Your task to perform on an android device: see sites visited before in the chrome app Image 0: 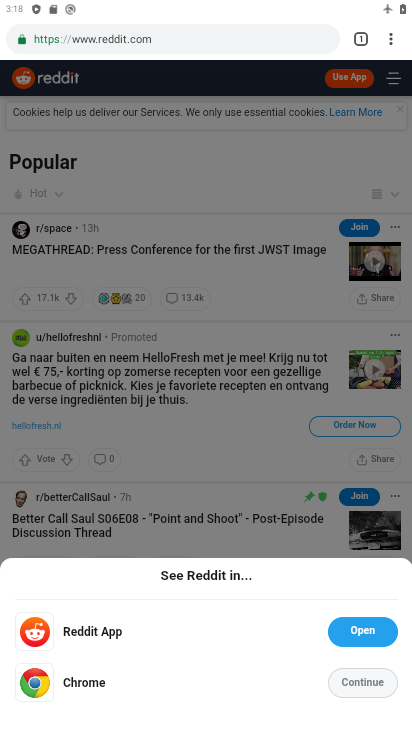
Step 0: press home button
Your task to perform on an android device: see sites visited before in the chrome app Image 1: 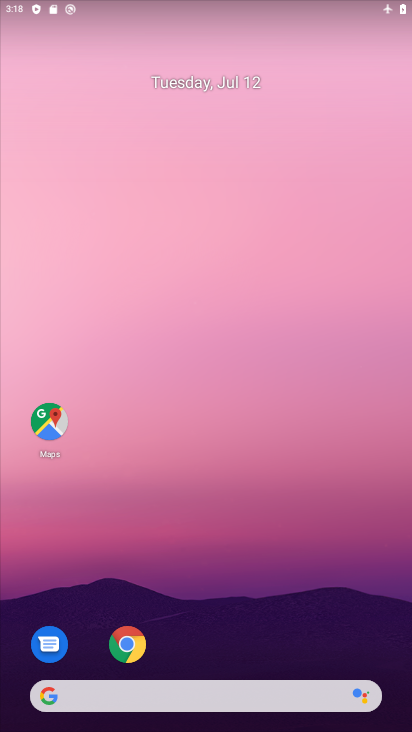
Step 1: drag from (215, 516) to (240, 187)
Your task to perform on an android device: see sites visited before in the chrome app Image 2: 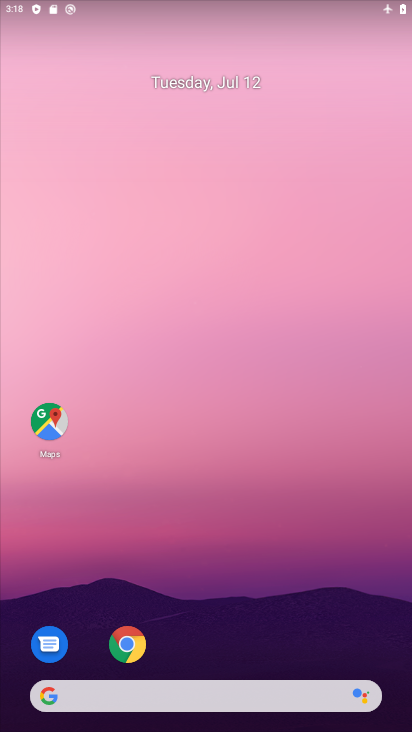
Step 2: drag from (303, 578) to (268, 10)
Your task to perform on an android device: see sites visited before in the chrome app Image 3: 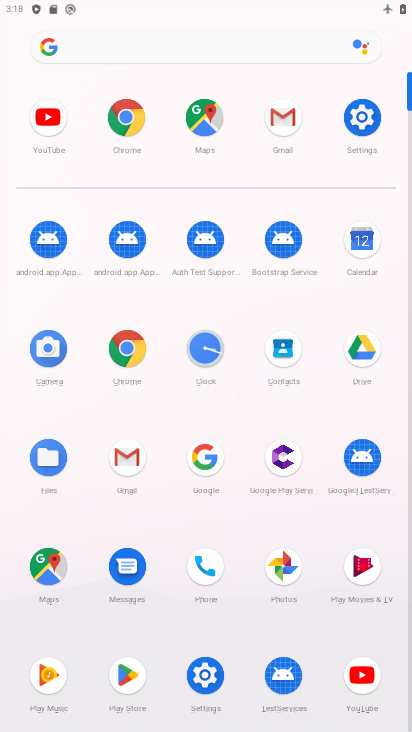
Step 3: click (122, 351)
Your task to perform on an android device: see sites visited before in the chrome app Image 4: 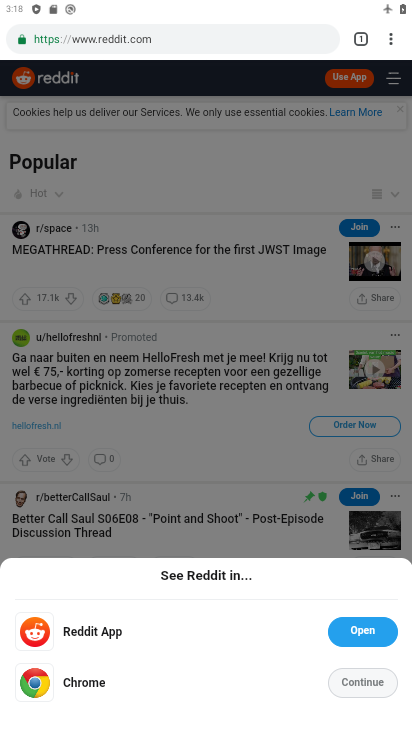
Step 4: task complete